Your task to perform on an android device: Go to Google Image 0: 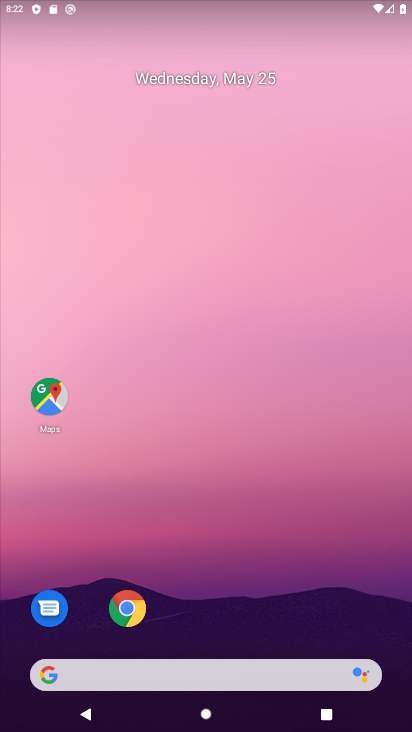
Step 0: drag from (246, 625) to (133, 117)
Your task to perform on an android device: Go to Google Image 1: 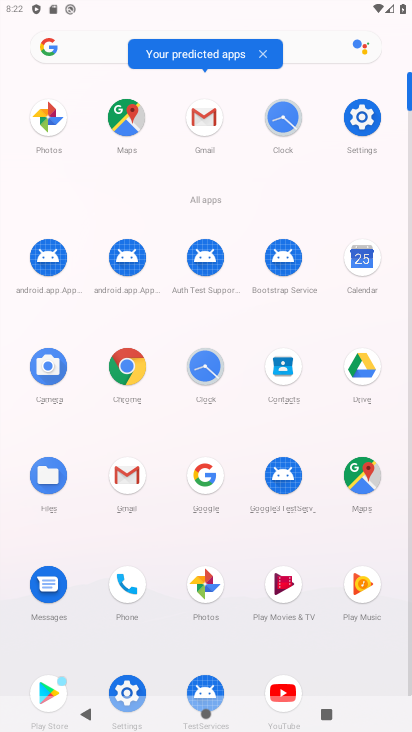
Step 1: click (200, 483)
Your task to perform on an android device: Go to Google Image 2: 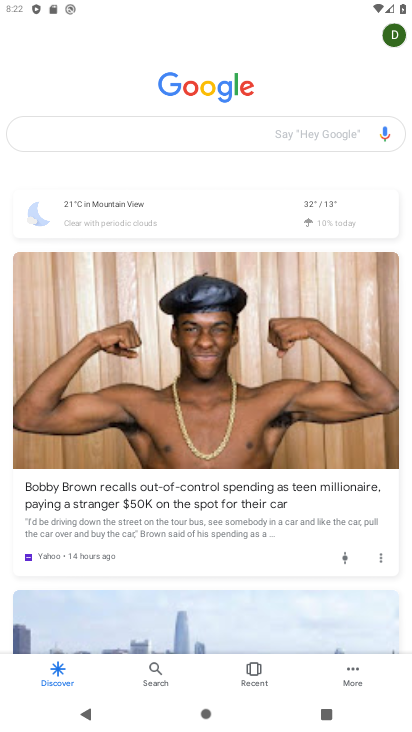
Step 2: task complete